Your task to perform on an android device: Open CNN.com Image 0: 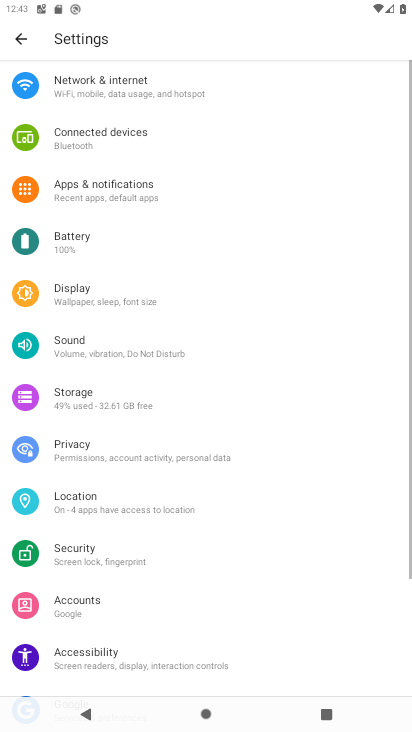
Step 0: press home button
Your task to perform on an android device: Open CNN.com Image 1: 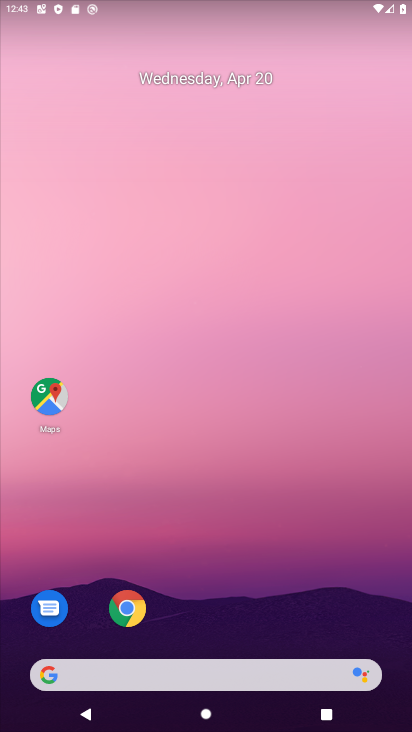
Step 1: drag from (273, 591) to (156, 161)
Your task to perform on an android device: Open CNN.com Image 2: 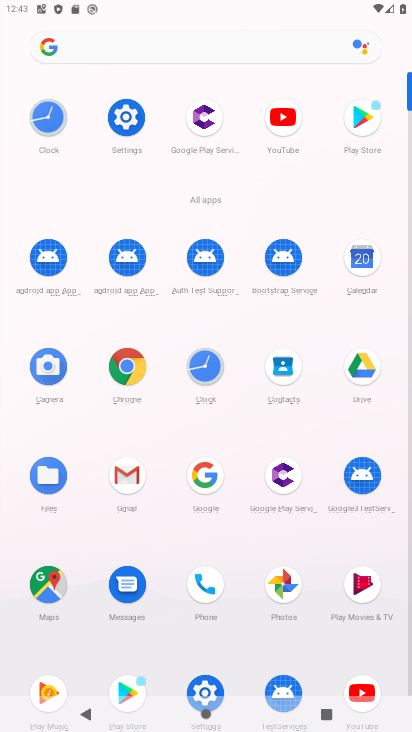
Step 2: click (130, 376)
Your task to perform on an android device: Open CNN.com Image 3: 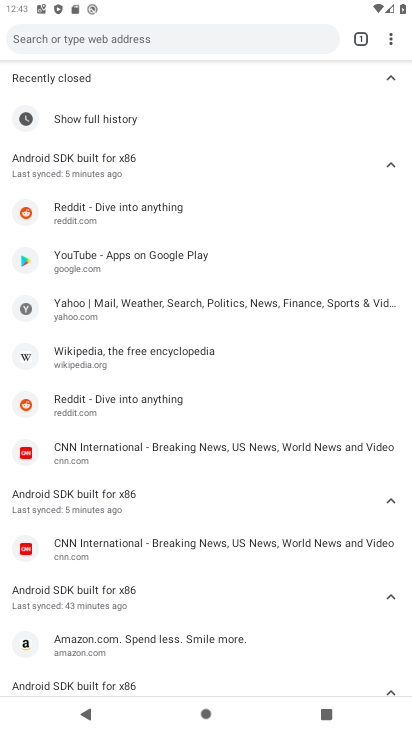
Step 3: click (222, 463)
Your task to perform on an android device: Open CNN.com Image 4: 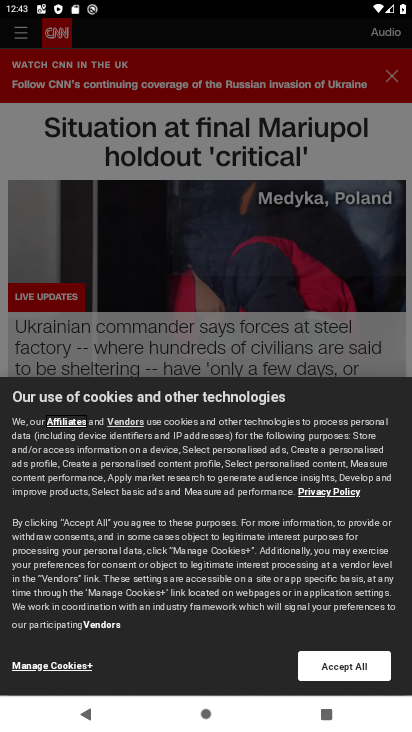
Step 4: task complete